Your task to perform on an android device: open the mobile data screen to see how much data has been used Image 0: 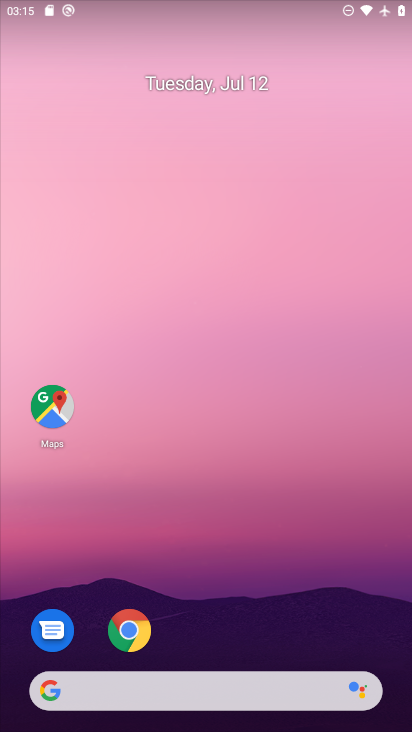
Step 0: drag from (375, 644) to (331, 118)
Your task to perform on an android device: open the mobile data screen to see how much data has been used Image 1: 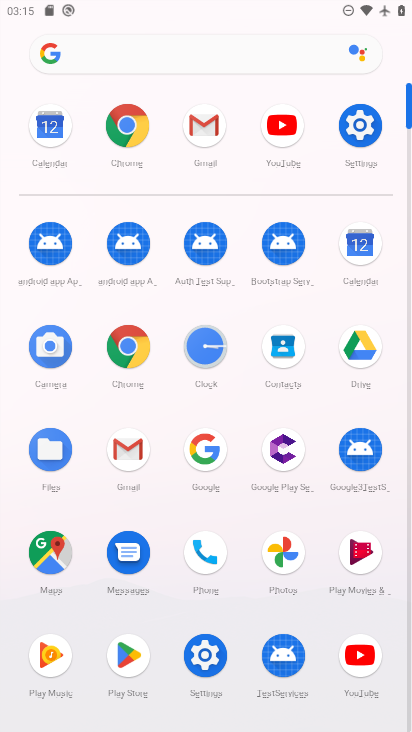
Step 1: click (206, 654)
Your task to perform on an android device: open the mobile data screen to see how much data has been used Image 2: 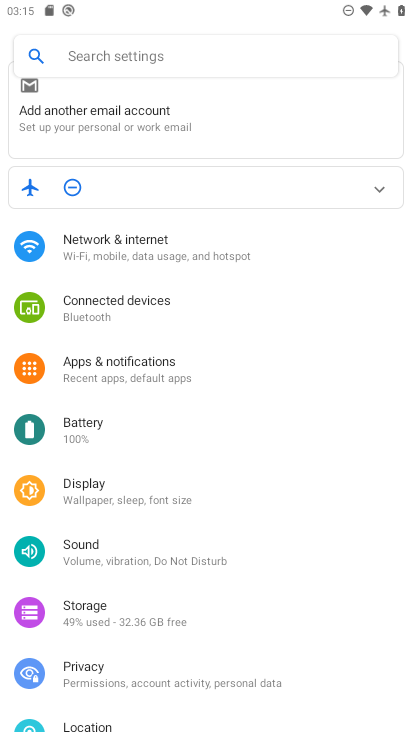
Step 2: click (117, 246)
Your task to perform on an android device: open the mobile data screen to see how much data has been used Image 3: 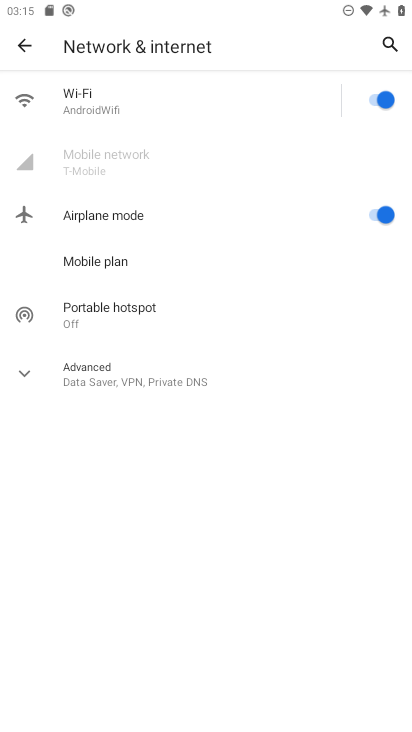
Step 3: task complete